Your task to perform on an android device: turn notification dots on Image 0: 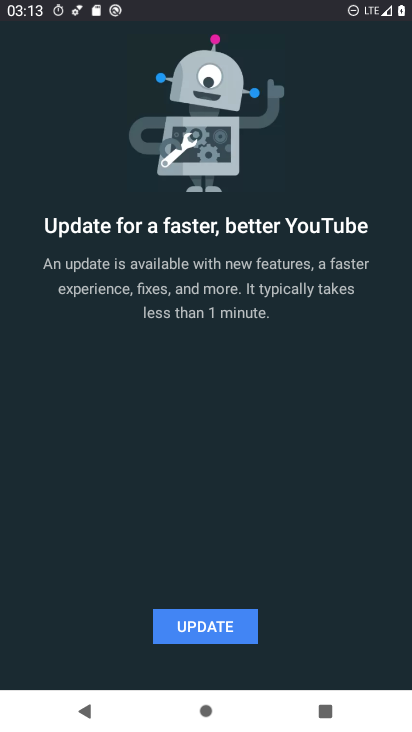
Step 0: press back button
Your task to perform on an android device: turn notification dots on Image 1: 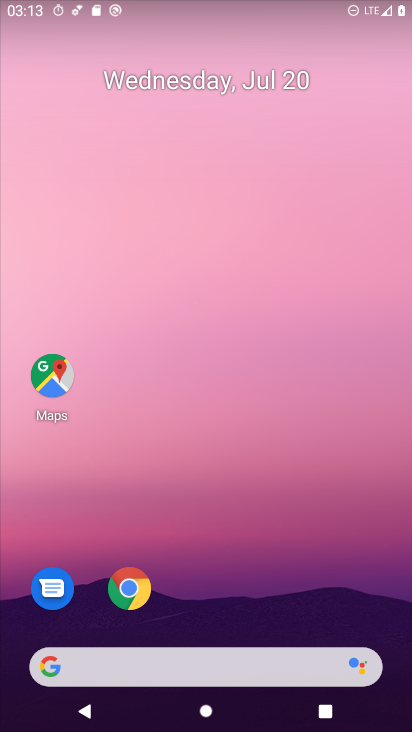
Step 1: drag from (215, 613) to (91, 20)
Your task to perform on an android device: turn notification dots on Image 2: 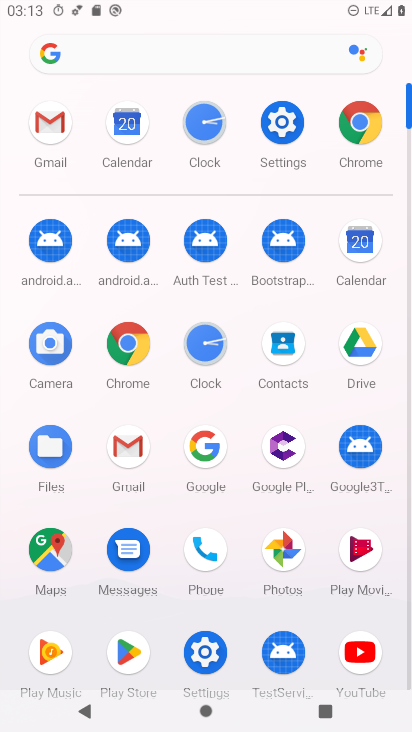
Step 2: click (205, 656)
Your task to perform on an android device: turn notification dots on Image 3: 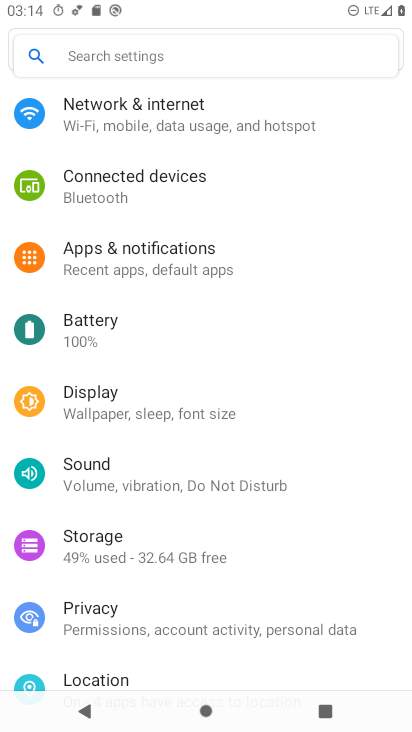
Step 3: click (146, 287)
Your task to perform on an android device: turn notification dots on Image 4: 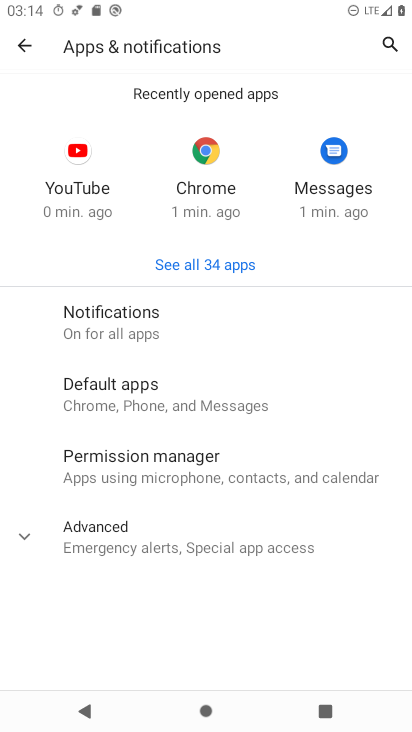
Step 4: click (133, 313)
Your task to perform on an android device: turn notification dots on Image 5: 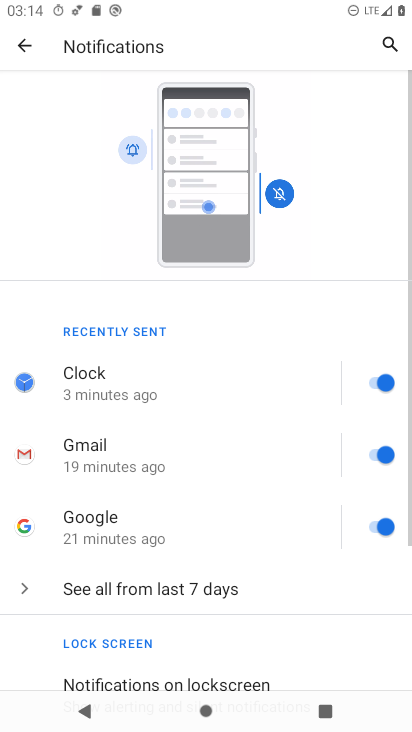
Step 5: drag from (215, 644) to (30, 101)
Your task to perform on an android device: turn notification dots on Image 6: 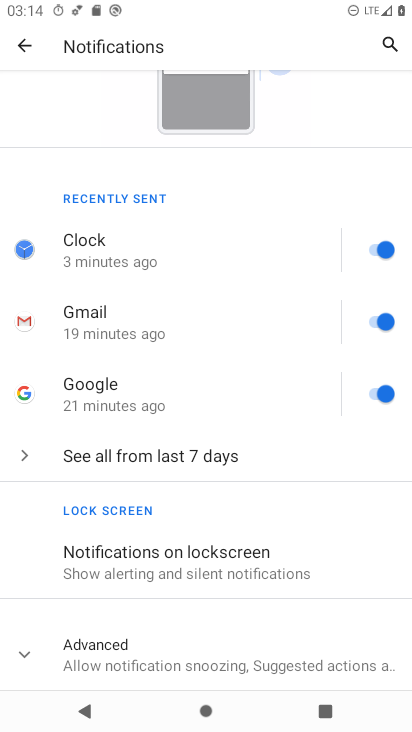
Step 6: click (133, 663)
Your task to perform on an android device: turn notification dots on Image 7: 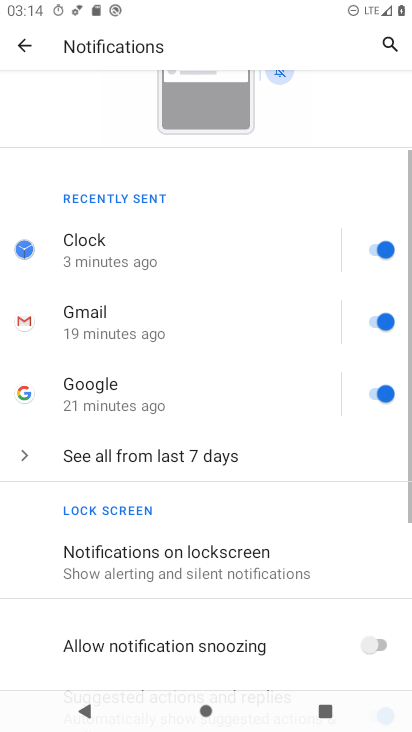
Step 7: drag from (164, 642) to (113, 313)
Your task to perform on an android device: turn notification dots on Image 8: 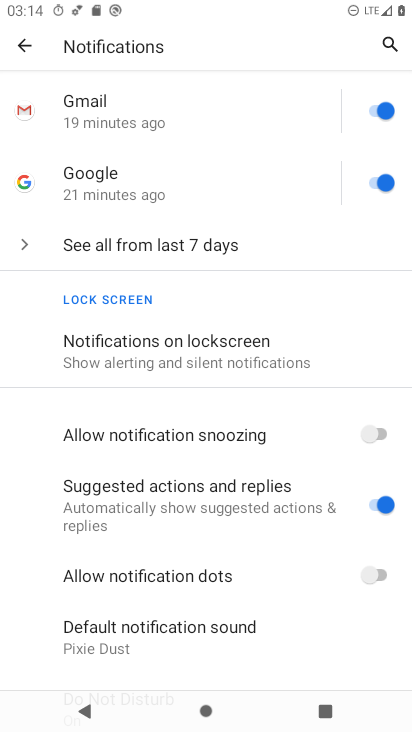
Step 8: click (370, 576)
Your task to perform on an android device: turn notification dots on Image 9: 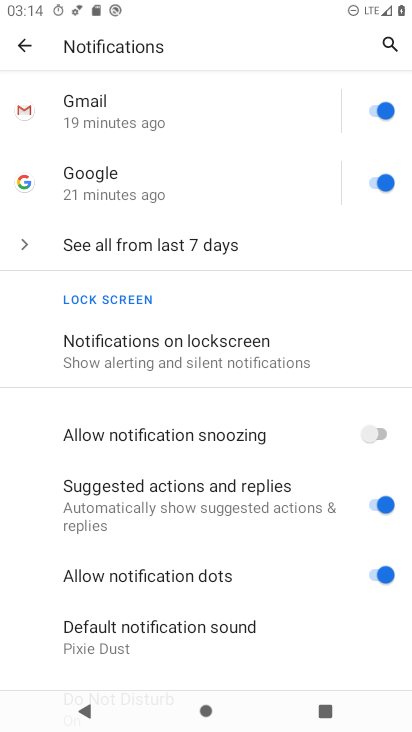
Step 9: task complete